Your task to perform on an android device: Open the phone app and click the voicemail tab. Image 0: 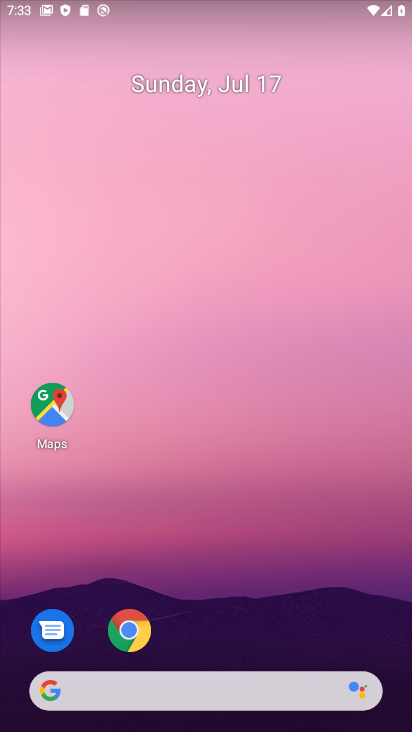
Step 0: drag from (266, 666) to (292, 182)
Your task to perform on an android device: Open the phone app and click the voicemail tab. Image 1: 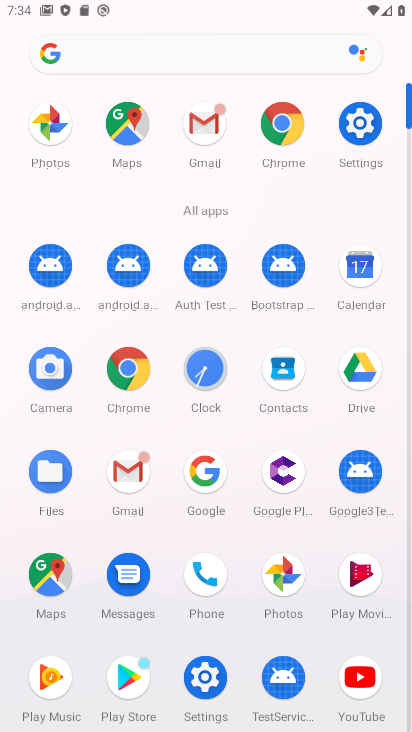
Step 1: click (195, 569)
Your task to perform on an android device: Open the phone app and click the voicemail tab. Image 2: 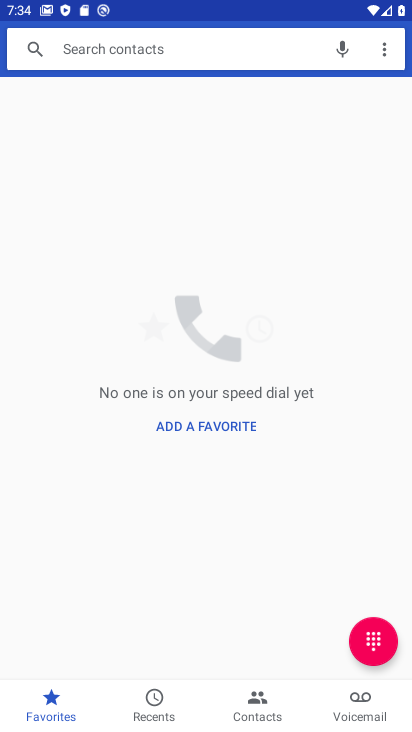
Step 2: click (356, 694)
Your task to perform on an android device: Open the phone app and click the voicemail tab. Image 3: 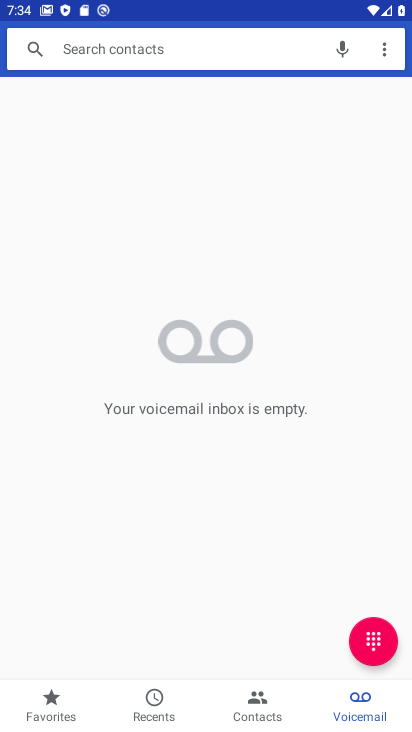
Step 3: task complete